Your task to perform on an android device: Go to network settings Image 0: 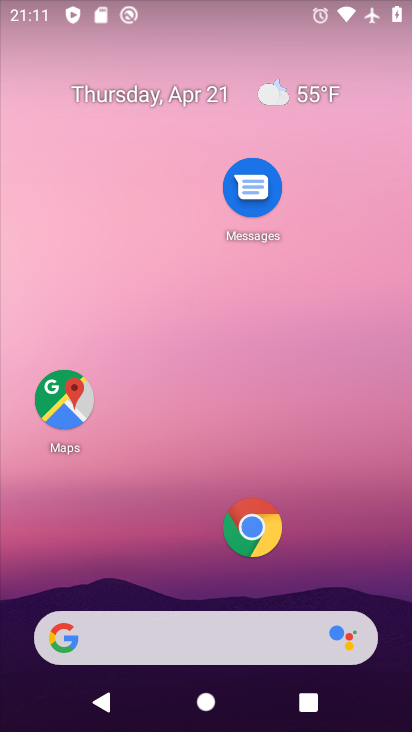
Step 0: drag from (156, 629) to (288, 196)
Your task to perform on an android device: Go to network settings Image 1: 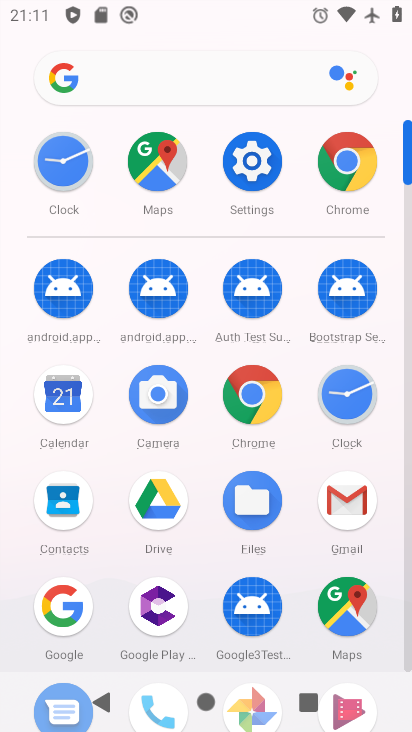
Step 1: click (262, 177)
Your task to perform on an android device: Go to network settings Image 2: 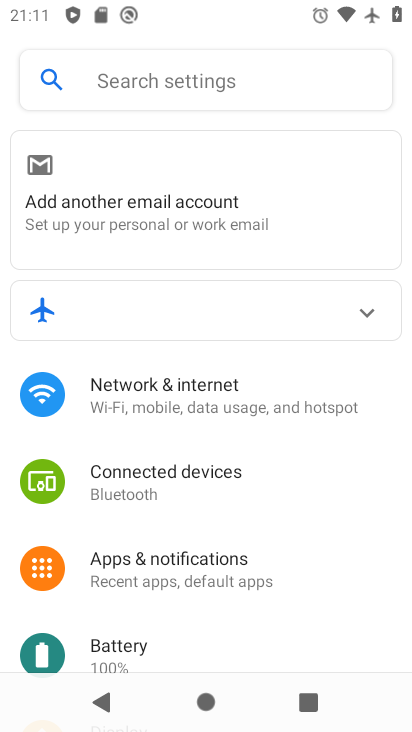
Step 2: click (178, 390)
Your task to perform on an android device: Go to network settings Image 3: 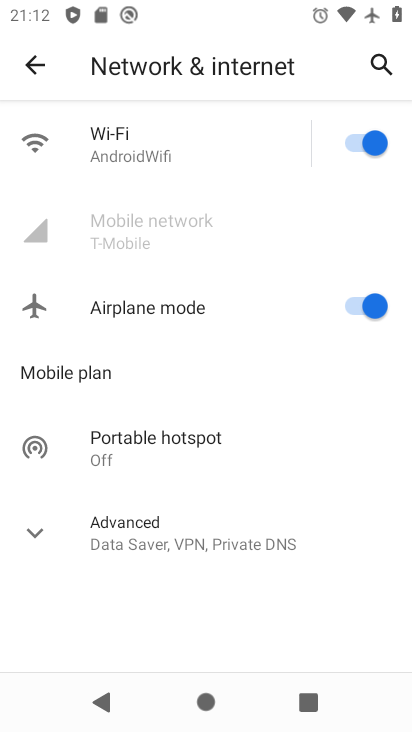
Step 3: task complete